Your task to perform on an android device: change the clock style Image 0: 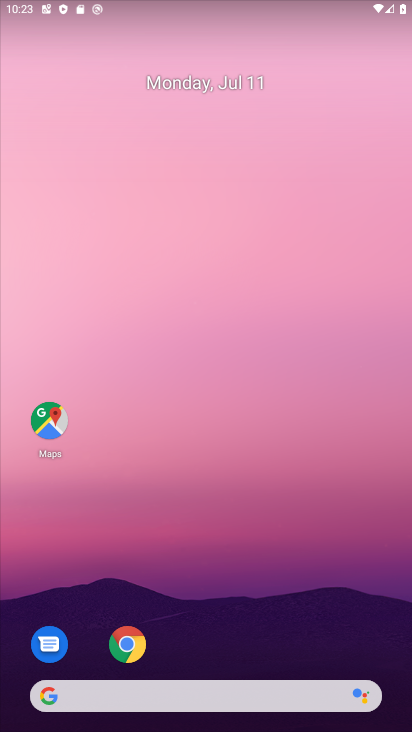
Step 0: drag from (217, 659) to (236, 118)
Your task to perform on an android device: change the clock style Image 1: 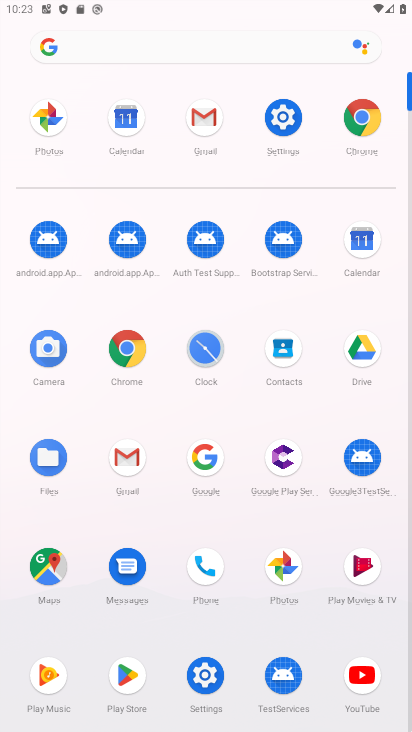
Step 1: click (198, 341)
Your task to perform on an android device: change the clock style Image 2: 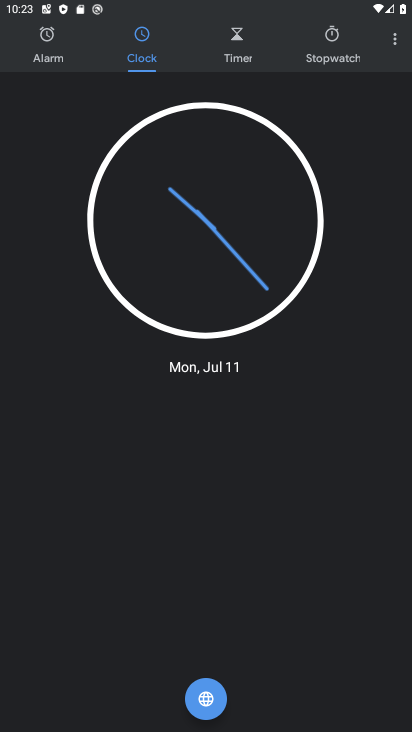
Step 2: click (398, 41)
Your task to perform on an android device: change the clock style Image 3: 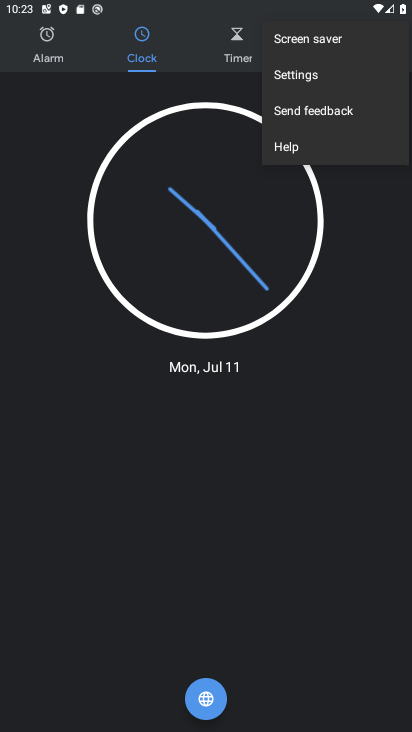
Step 3: click (320, 72)
Your task to perform on an android device: change the clock style Image 4: 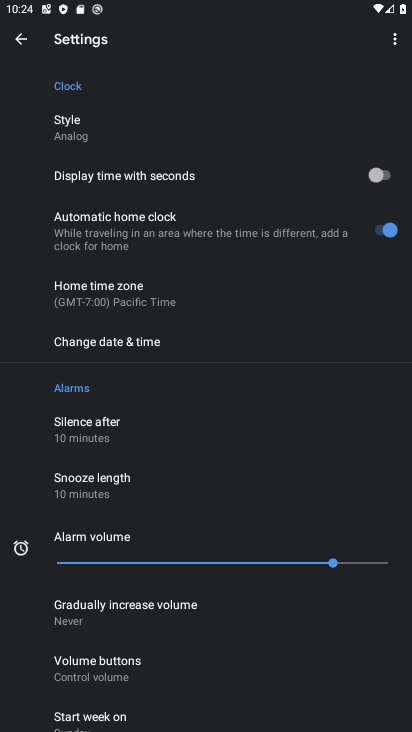
Step 4: click (109, 132)
Your task to perform on an android device: change the clock style Image 5: 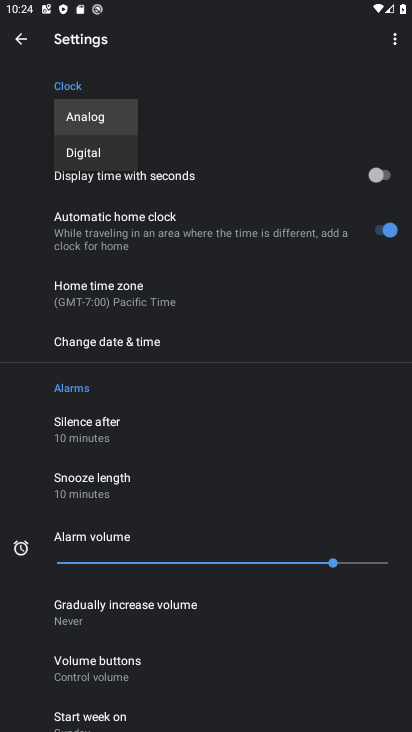
Step 5: click (112, 145)
Your task to perform on an android device: change the clock style Image 6: 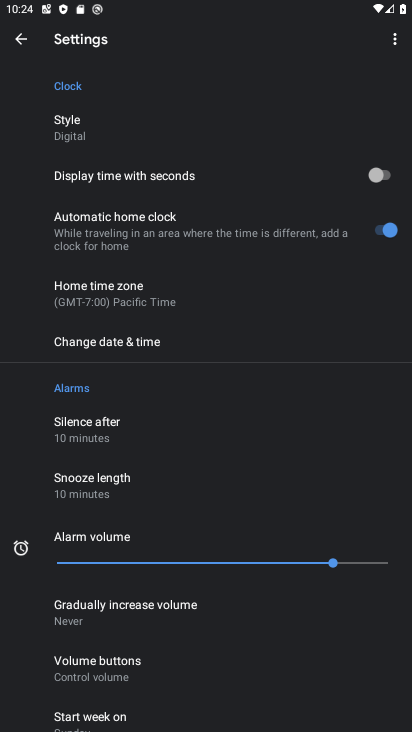
Step 6: task complete